Your task to perform on an android device: Open the calendar and show me this week's events? Image 0: 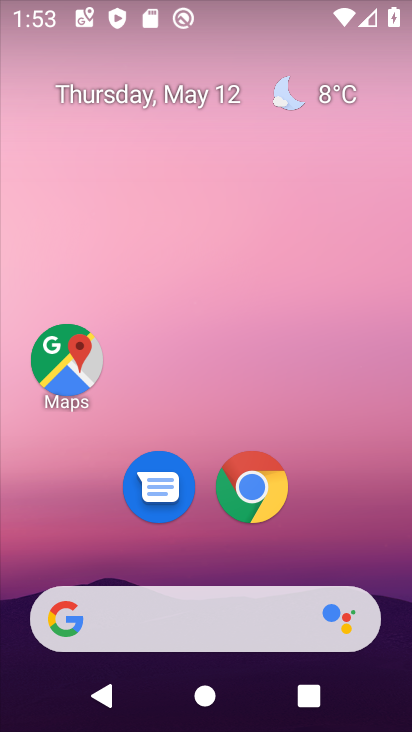
Step 0: drag from (314, 511) to (272, 77)
Your task to perform on an android device: Open the calendar and show me this week's events? Image 1: 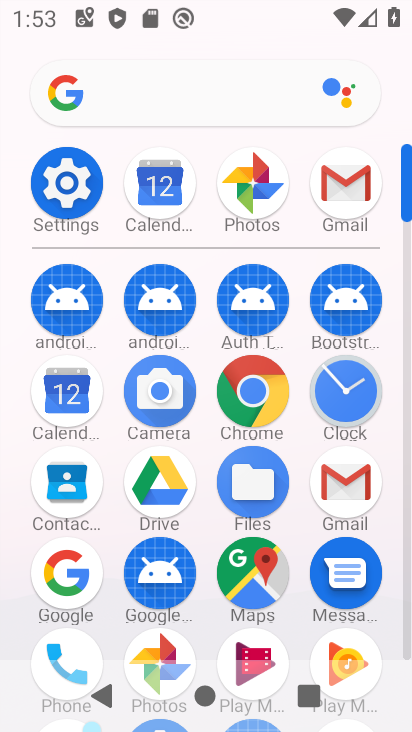
Step 1: click (66, 401)
Your task to perform on an android device: Open the calendar and show me this week's events? Image 2: 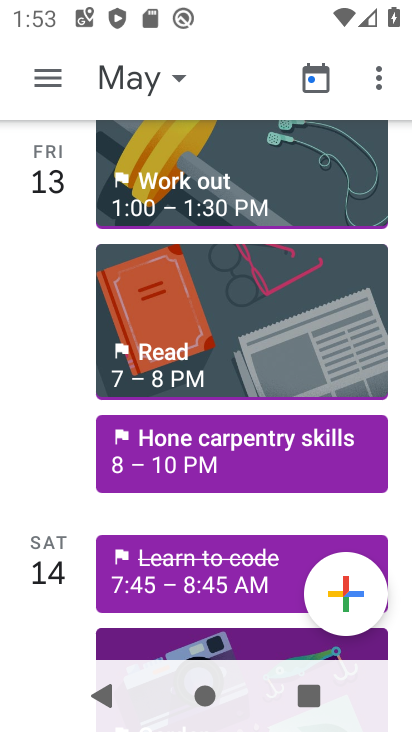
Step 2: click (133, 82)
Your task to perform on an android device: Open the calendar and show me this week's events? Image 3: 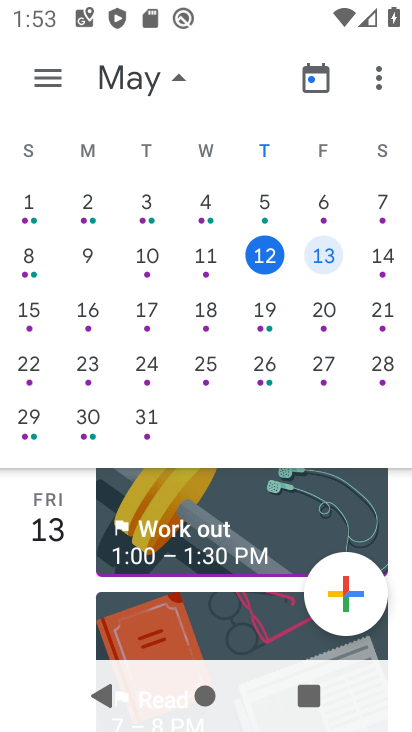
Step 3: click (261, 249)
Your task to perform on an android device: Open the calendar and show me this week's events? Image 4: 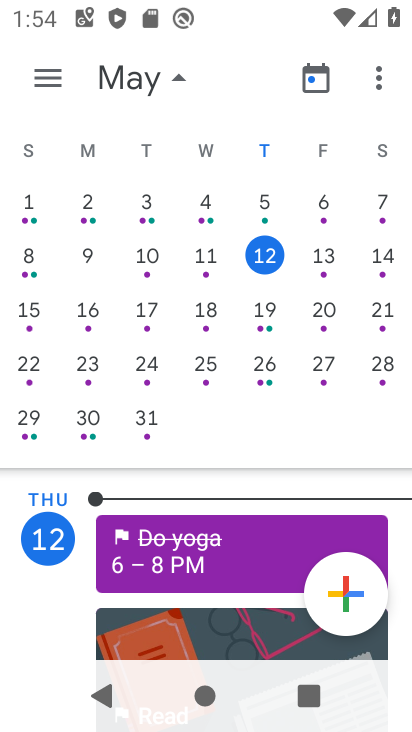
Step 4: task complete